Your task to perform on an android device: Open maps Image 0: 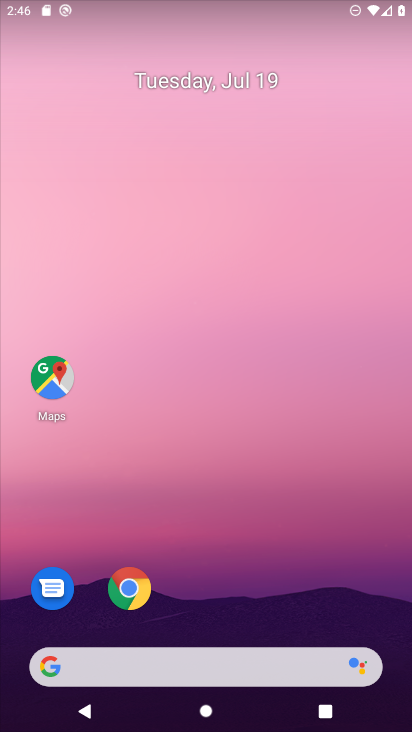
Step 0: click (54, 383)
Your task to perform on an android device: Open maps Image 1: 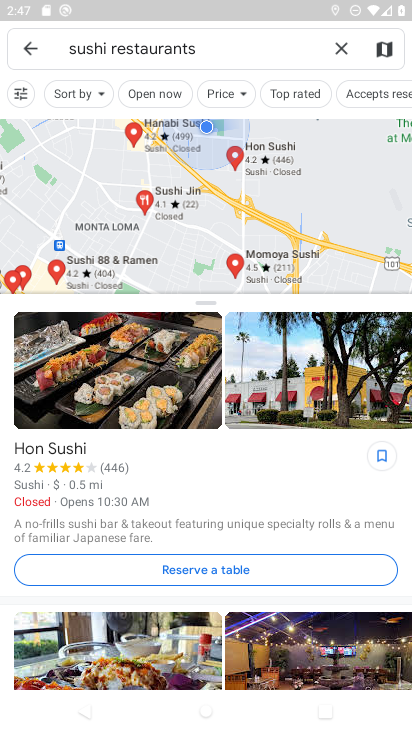
Step 1: task complete